Your task to perform on an android device: set the timer Image 0: 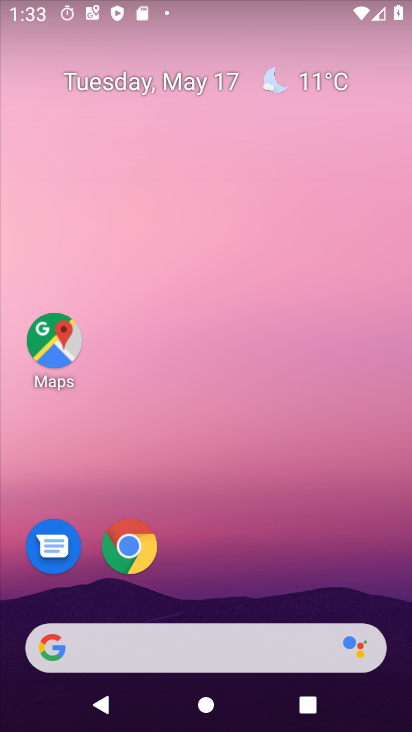
Step 0: press home button
Your task to perform on an android device: set the timer Image 1: 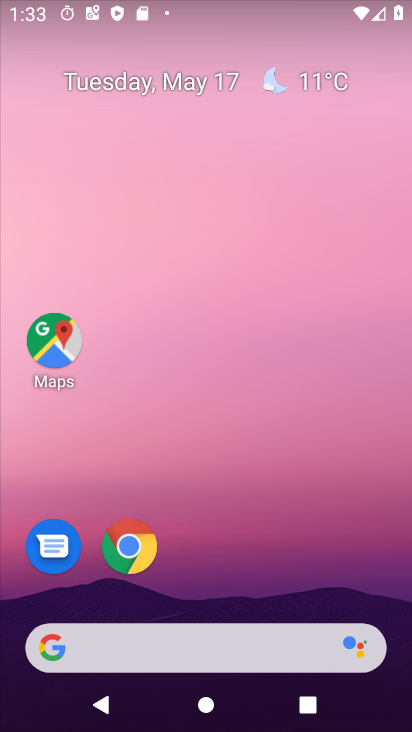
Step 1: drag from (199, 648) to (276, 198)
Your task to perform on an android device: set the timer Image 2: 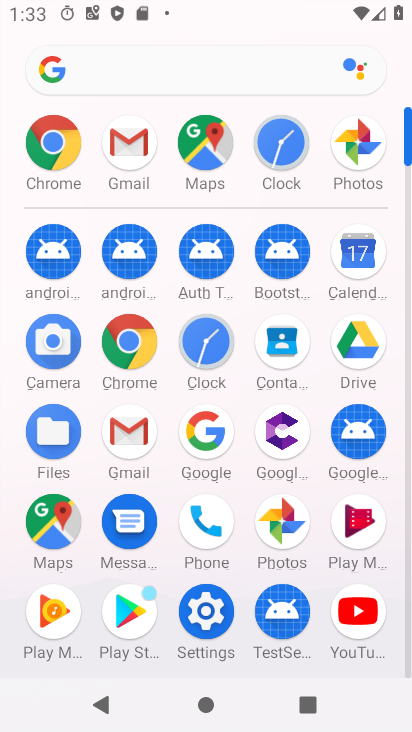
Step 2: click (289, 143)
Your task to perform on an android device: set the timer Image 3: 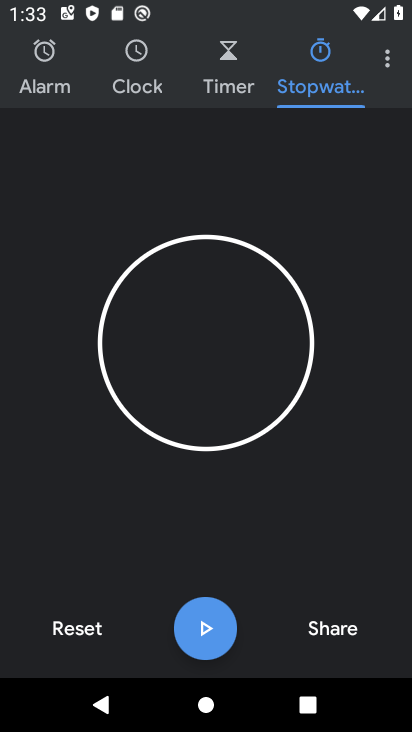
Step 3: click (226, 76)
Your task to perform on an android device: set the timer Image 4: 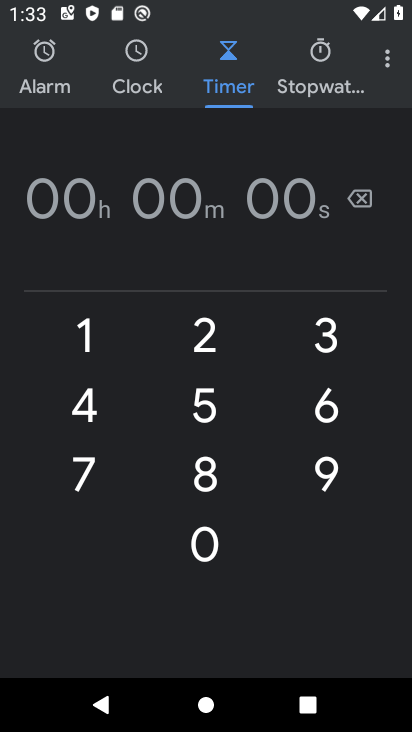
Step 4: click (86, 334)
Your task to perform on an android device: set the timer Image 5: 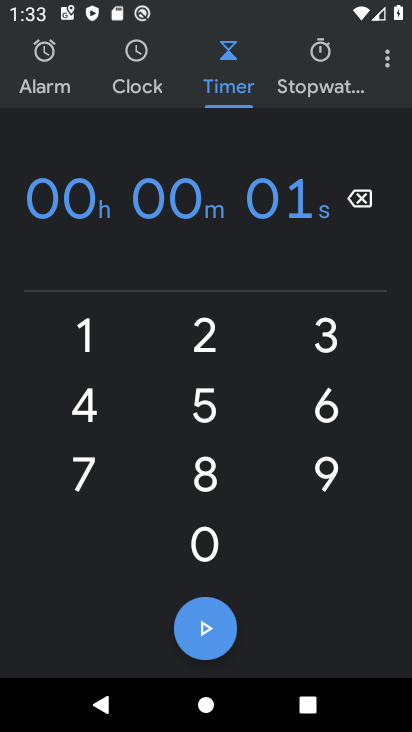
Step 5: click (232, 320)
Your task to perform on an android device: set the timer Image 6: 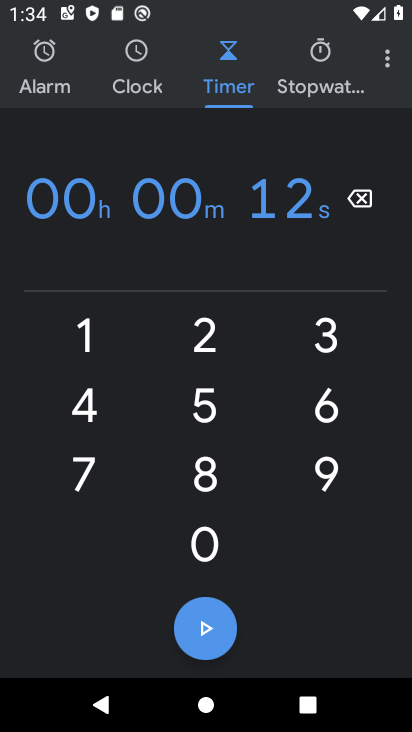
Step 6: click (222, 615)
Your task to perform on an android device: set the timer Image 7: 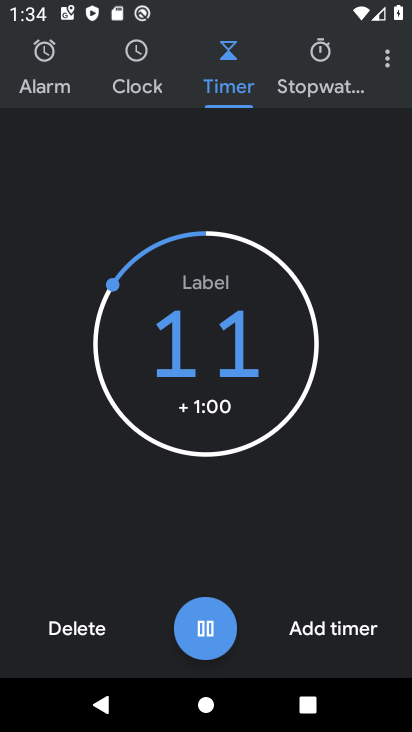
Step 7: click (206, 629)
Your task to perform on an android device: set the timer Image 8: 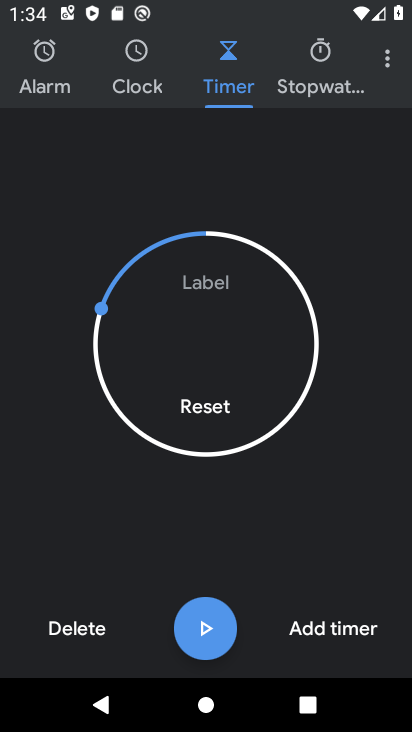
Step 8: task complete